Your task to perform on an android device: Open ESPN.com Image 0: 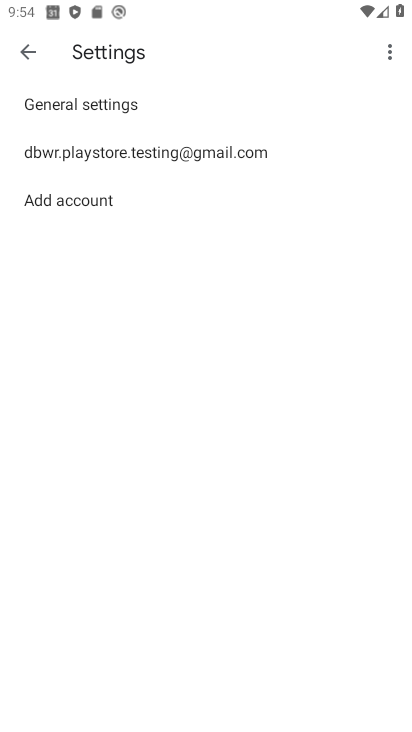
Step 0: press home button
Your task to perform on an android device: Open ESPN.com Image 1: 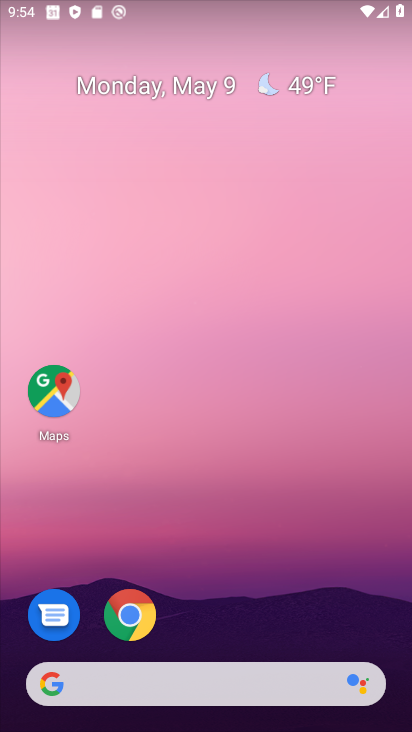
Step 1: click (144, 626)
Your task to perform on an android device: Open ESPN.com Image 2: 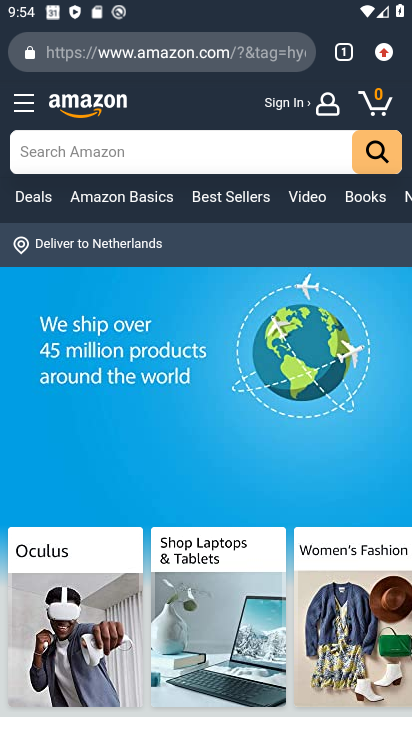
Step 2: click (176, 56)
Your task to perform on an android device: Open ESPN.com Image 3: 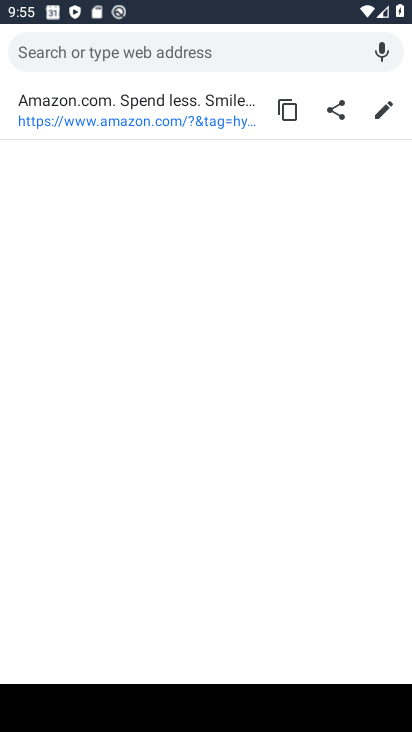
Step 3: type "ESPN.com"
Your task to perform on an android device: Open ESPN.com Image 4: 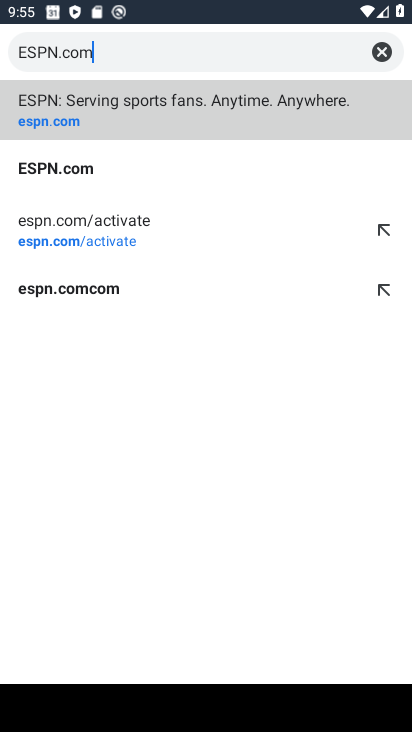
Step 4: click (88, 163)
Your task to perform on an android device: Open ESPN.com Image 5: 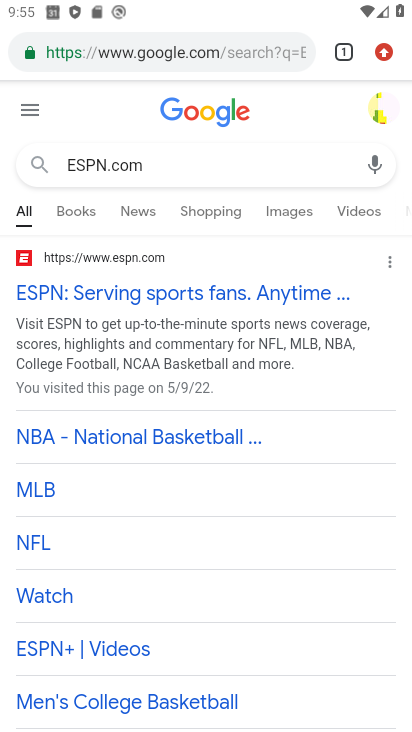
Step 5: click (116, 291)
Your task to perform on an android device: Open ESPN.com Image 6: 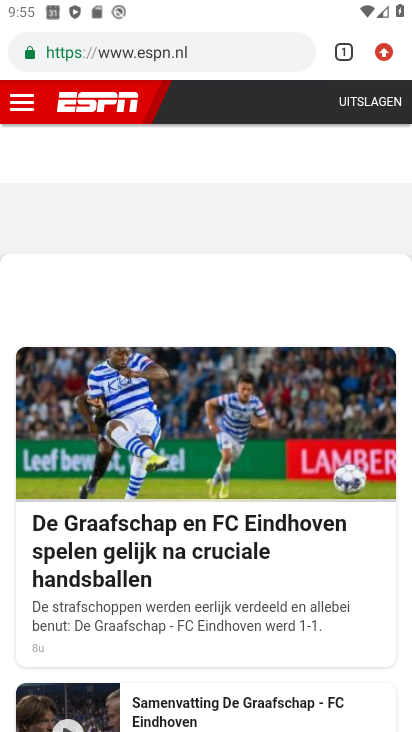
Step 6: task complete